Your task to perform on an android device: Go to Google Image 0: 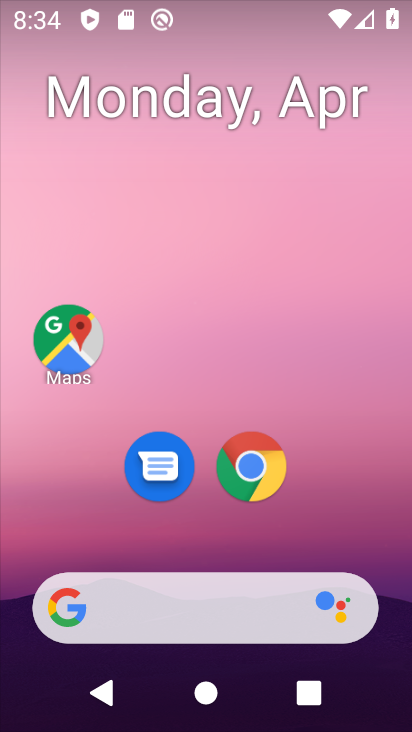
Step 0: drag from (213, 541) to (290, 80)
Your task to perform on an android device: Go to Google Image 1: 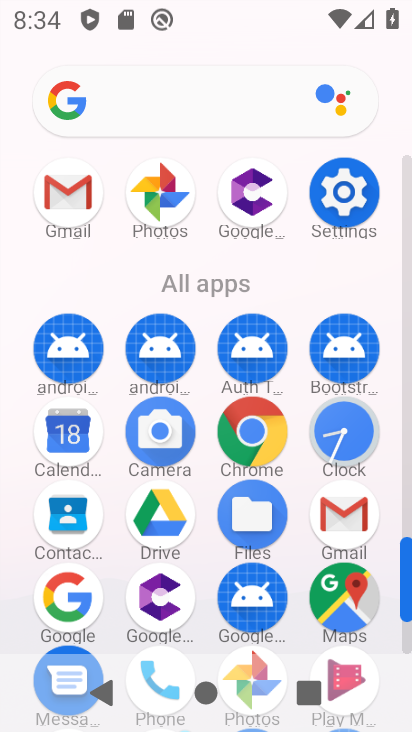
Step 1: click (67, 596)
Your task to perform on an android device: Go to Google Image 2: 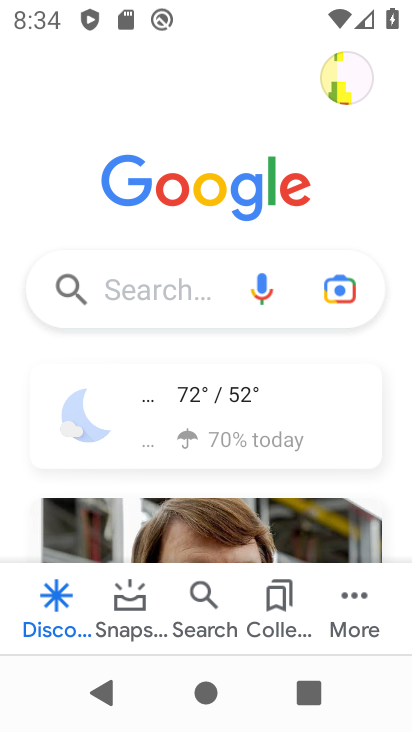
Step 2: task complete